Your task to perform on an android device: check out phone information Image 0: 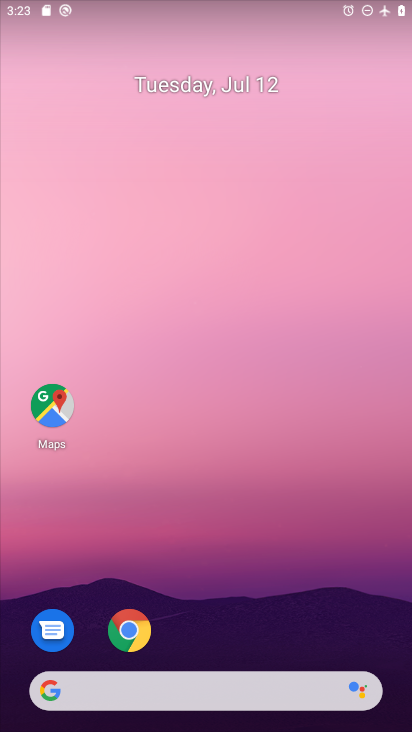
Step 0: drag from (213, 633) to (218, 200)
Your task to perform on an android device: check out phone information Image 1: 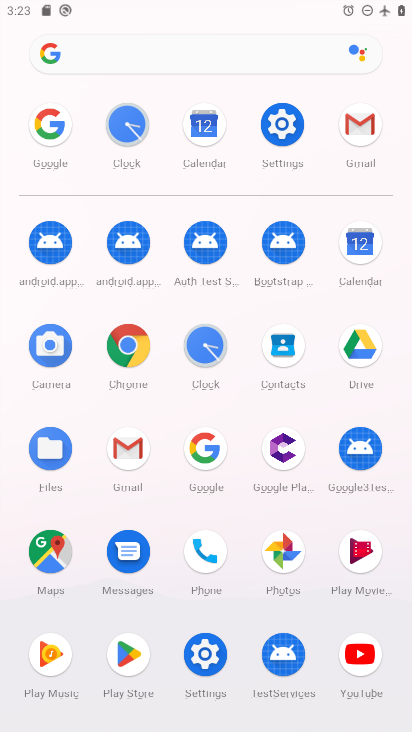
Step 1: click (291, 130)
Your task to perform on an android device: check out phone information Image 2: 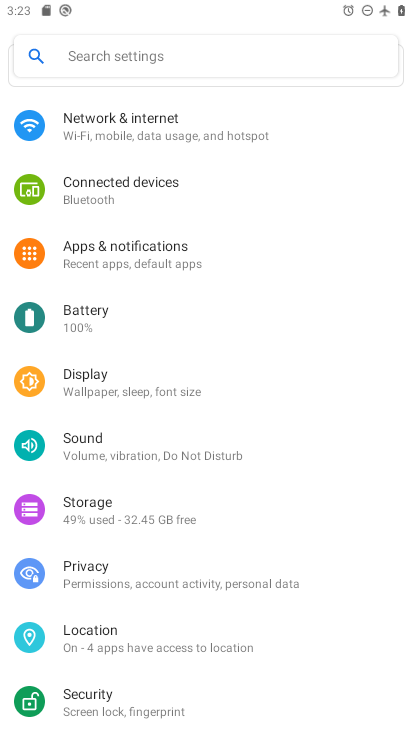
Step 2: drag from (209, 655) to (209, 163)
Your task to perform on an android device: check out phone information Image 3: 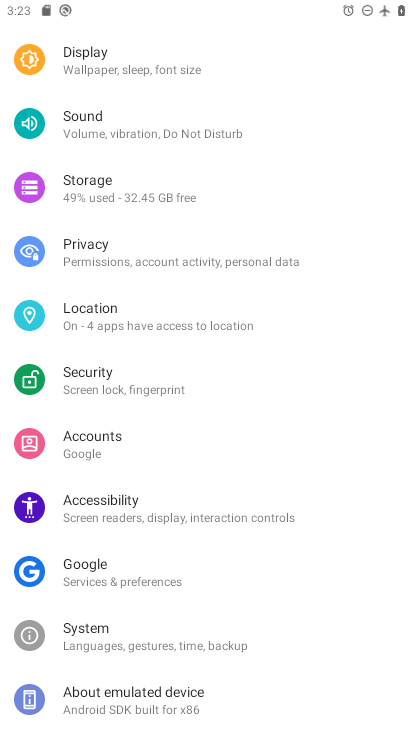
Step 3: drag from (193, 577) to (206, 230)
Your task to perform on an android device: check out phone information Image 4: 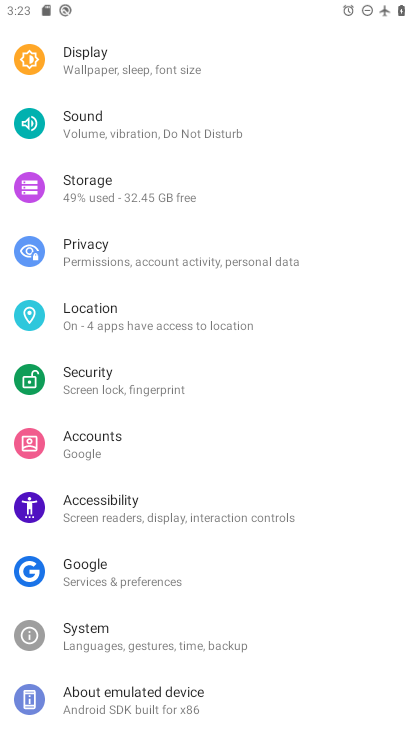
Step 4: drag from (155, 612) to (186, 354)
Your task to perform on an android device: check out phone information Image 5: 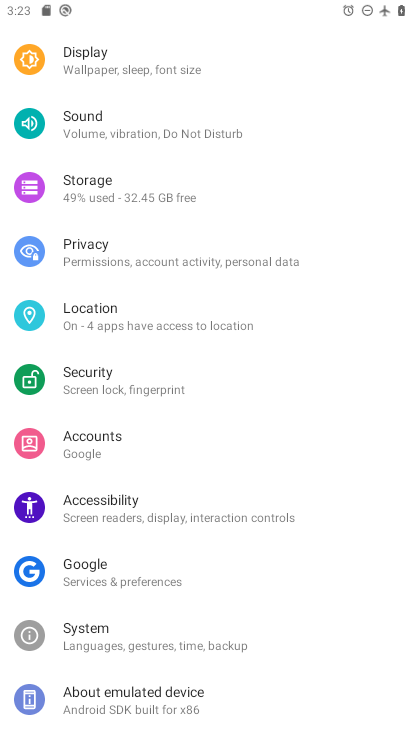
Step 5: click (123, 700)
Your task to perform on an android device: check out phone information Image 6: 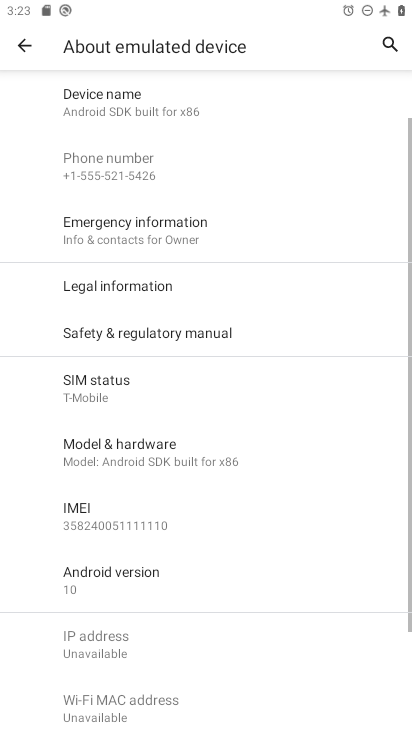
Step 6: task complete